Your task to perform on an android device: Is it going to rain today? Image 0: 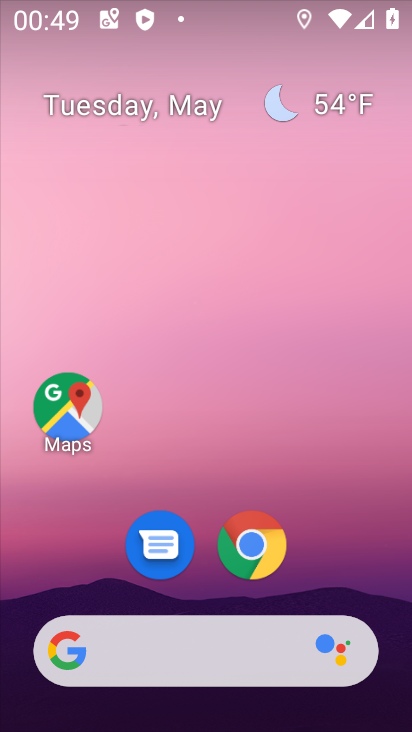
Step 0: click (341, 117)
Your task to perform on an android device: Is it going to rain today? Image 1: 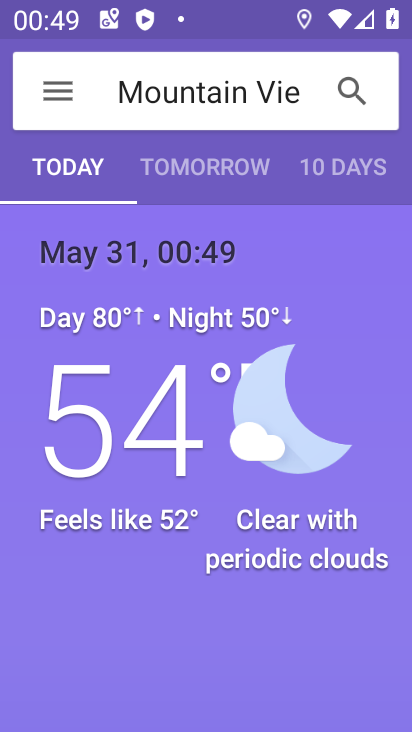
Step 1: task complete